Your task to perform on an android device: Search for seafood restaurants on Google Maps Image 0: 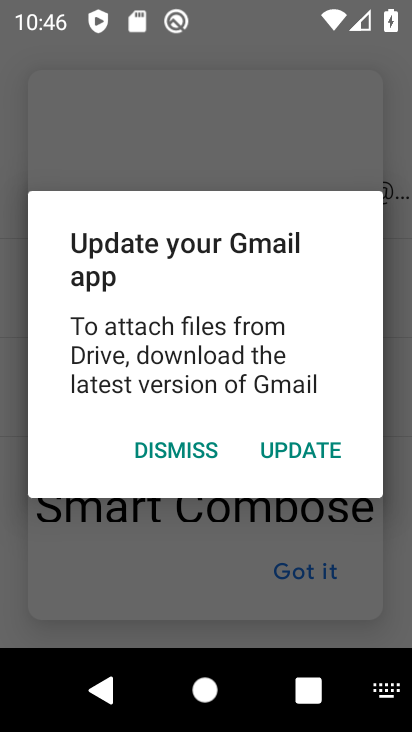
Step 0: press home button
Your task to perform on an android device: Search for seafood restaurants on Google Maps Image 1: 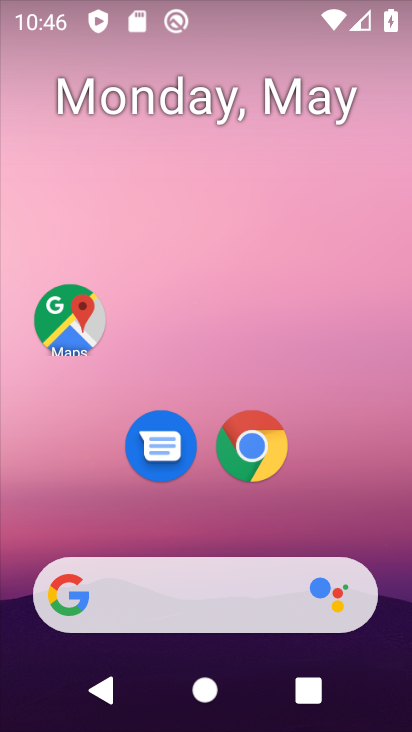
Step 1: click (79, 331)
Your task to perform on an android device: Search for seafood restaurants on Google Maps Image 2: 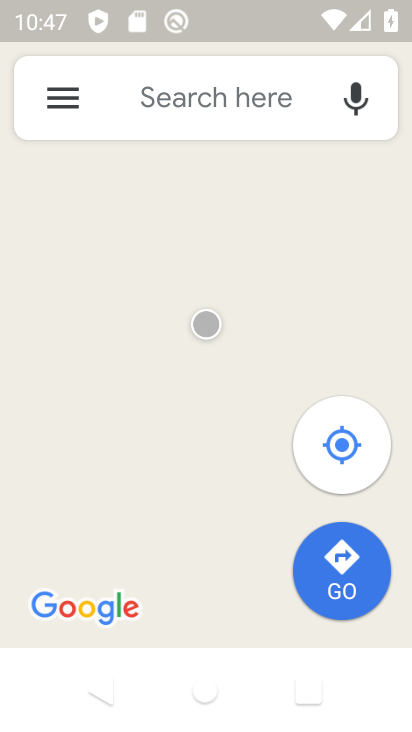
Step 2: click (189, 104)
Your task to perform on an android device: Search for seafood restaurants on Google Maps Image 3: 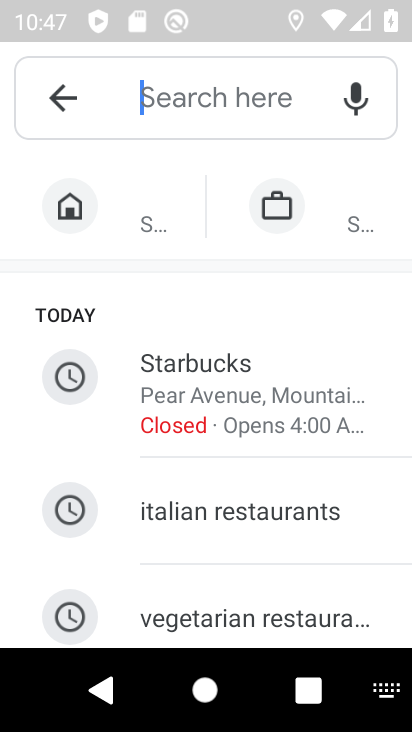
Step 3: type "seafood restaurants"
Your task to perform on an android device: Search for seafood restaurants on Google Maps Image 4: 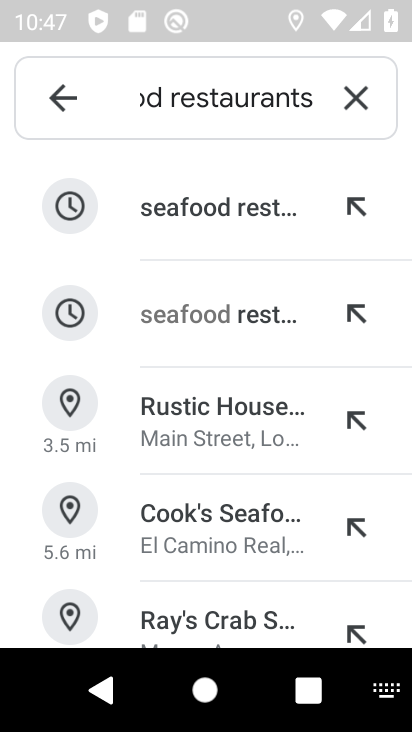
Step 4: click (236, 213)
Your task to perform on an android device: Search for seafood restaurants on Google Maps Image 5: 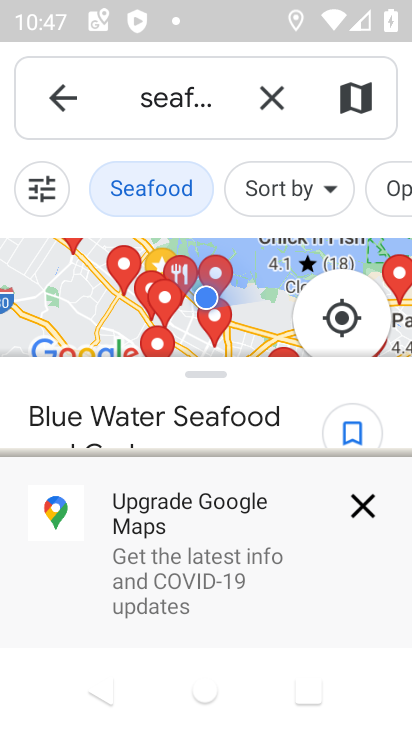
Step 5: click (356, 513)
Your task to perform on an android device: Search for seafood restaurants on Google Maps Image 6: 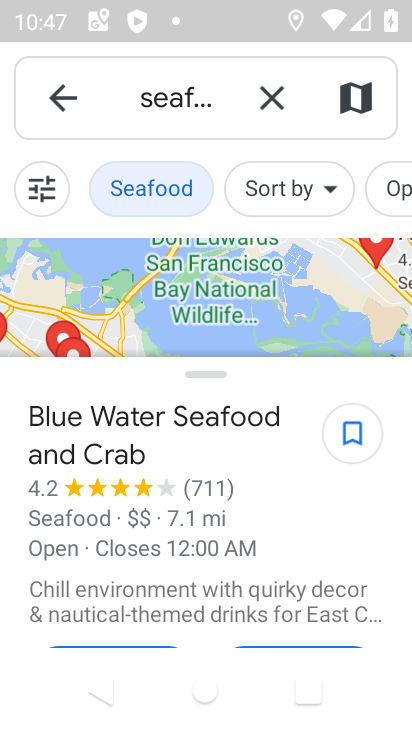
Step 6: task complete